Your task to perform on an android device: turn on data saver in the chrome app Image 0: 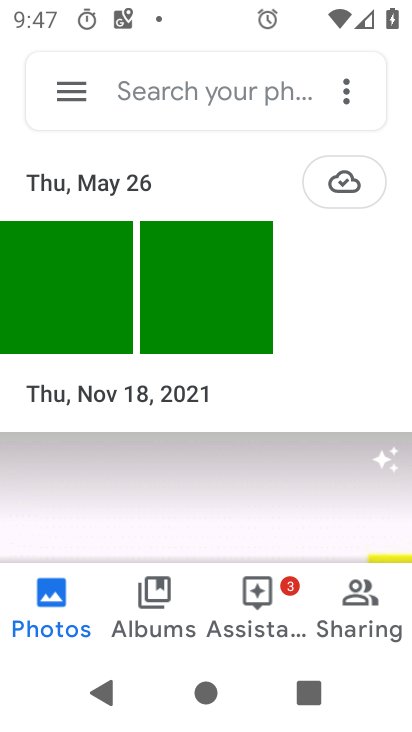
Step 0: press home button
Your task to perform on an android device: turn on data saver in the chrome app Image 1: 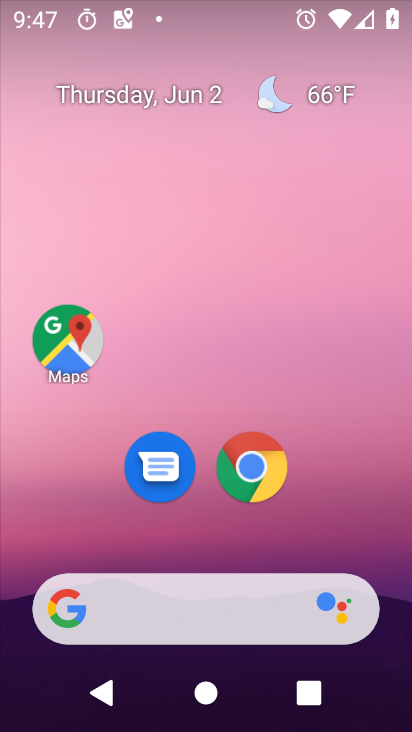
Step 1: drag from (25, 605) to (298, 190)
Your task to perform on an android device: turn on data saver in the chrome app Image 2: 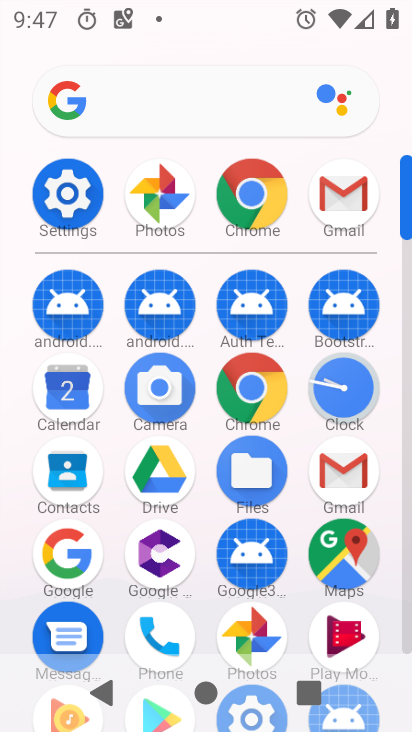
Step 2: click (245, 196)
Your task to perform on an android device: turn on data saver in the chrome app Image 3: 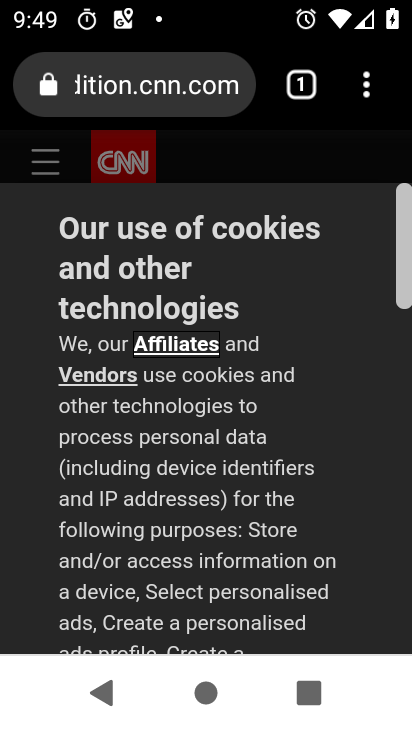
Step 3: task complete